Your task to perform on an android device: toggle data saver in the chrome app Image 0: 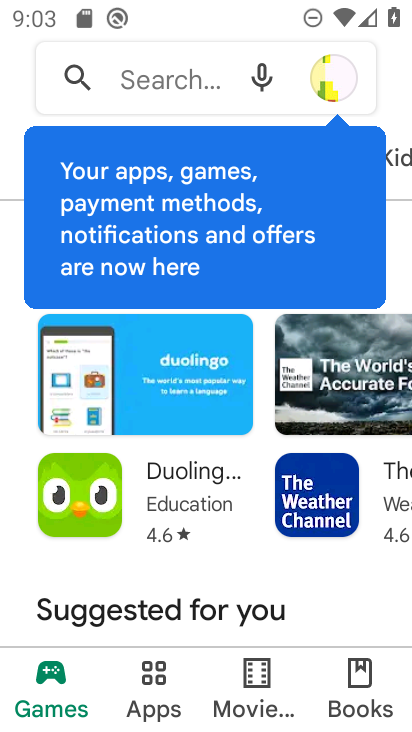
Step 0: press home button
Your task to perform on an android device: toggle data saver in the chrome app Image 1: 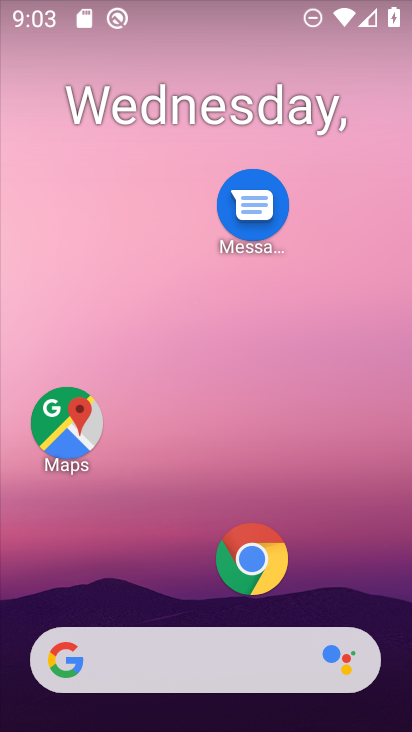
Step 1: drag from (204, 596) to (180, 86)
Your task to perform on an android device: toggle data saver in the chrome app Image 2: 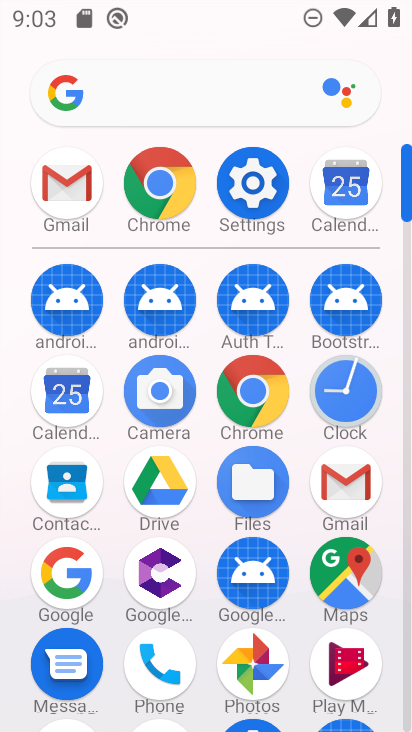
Step 2: click (174, 193)
Your task to perform on an android device: toggle data saver in the chrome app Image 3: 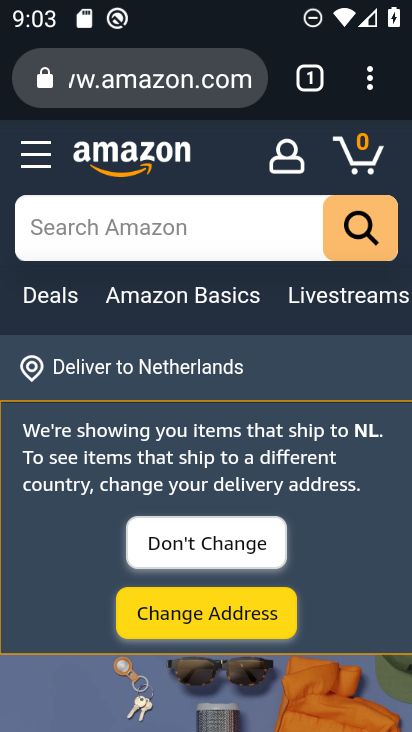
Step 3: click (371, 91)
Your task to perform on an android device: toggle data saver in the chrome app Image 4: 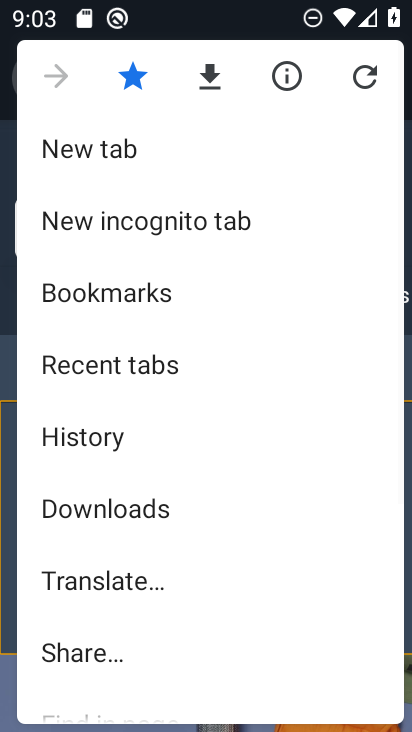
Step 4: drag from (234, 327) to (277, 2)
Your task to perform on an android device: toggle data saver in the chrome app Image 5: 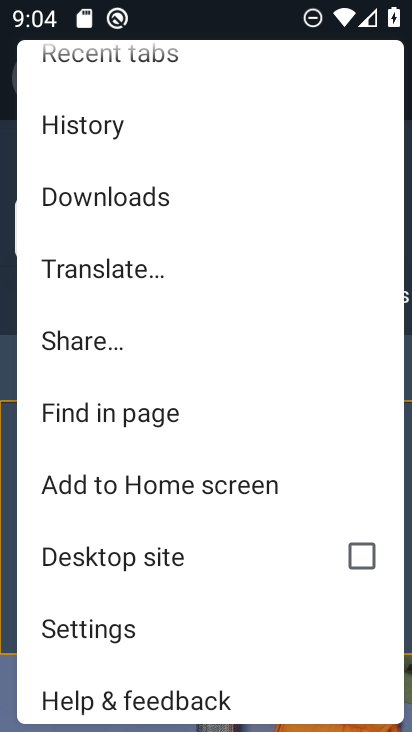
Step 5: drag from (179, 475) to (170, 47)
Your task to perform on an android device: toggle data saver in the chrome app Image 6: 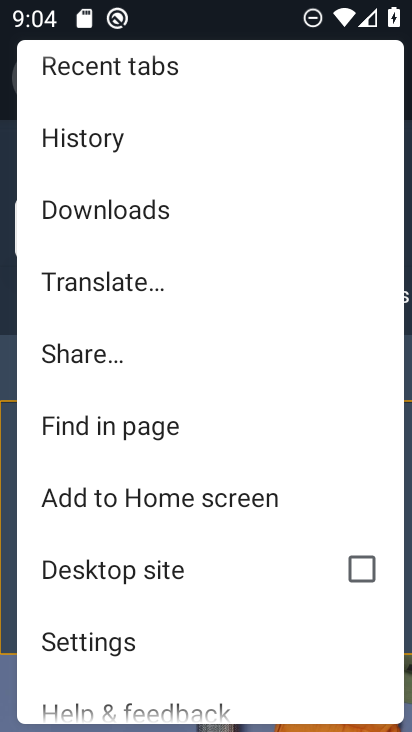
Step 6: click (81, 649)
Your task to perform on an android device: toggle data saver in the chrome app Image 7: 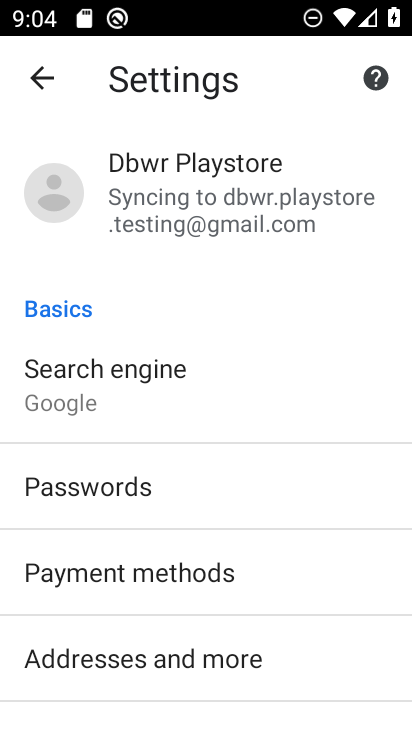
Step 7: drag from (150, 619) to (170, 224)
Your task to perform on an android device: toggle data saver in the chrome app Image 8: 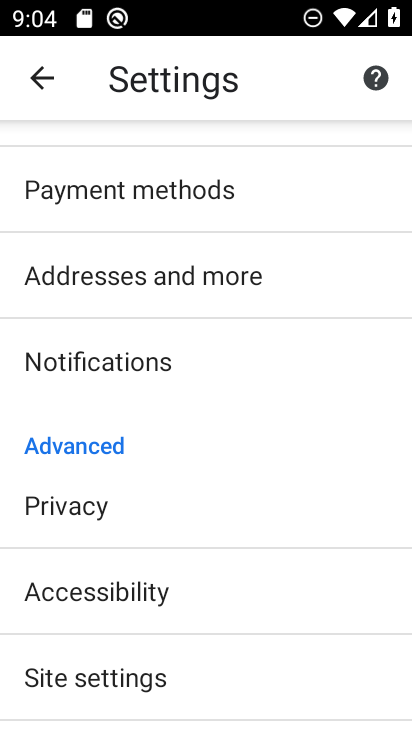
Step 8: drag from (96, 627) to (109, 281)
Your task to perform on an android device: toggle data saver in the chrome app Image 9: 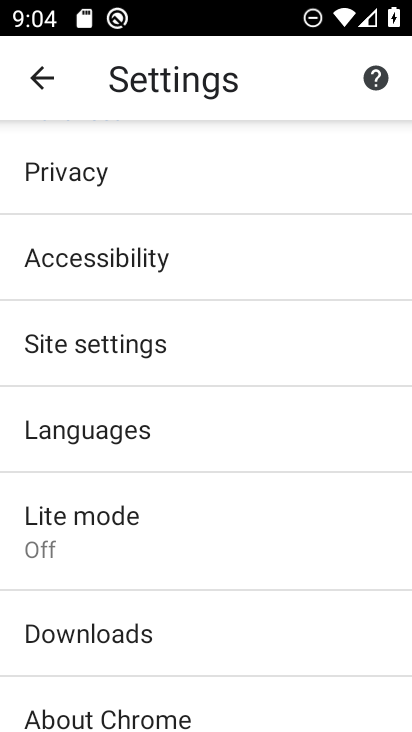
Step 9: drag from (95, 602) to (122, 196)
Your task to perform on an android device: toggle data saver in the chrome app Image 10: 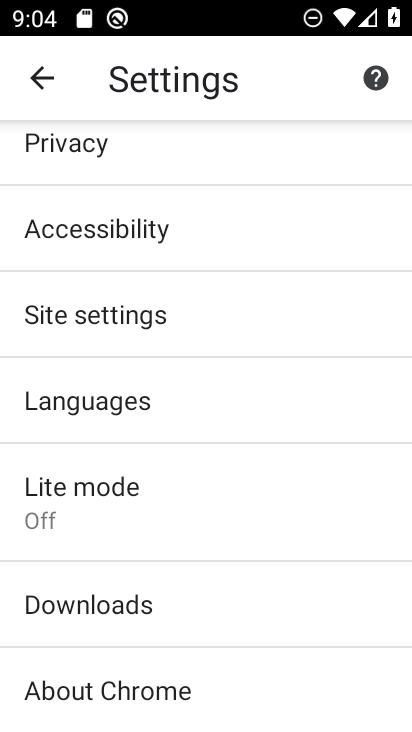
Step 10: drag from (141, 552) to (191, 362)
Your task to perform on an android device: toggle data saver in the chrome app Image 11: 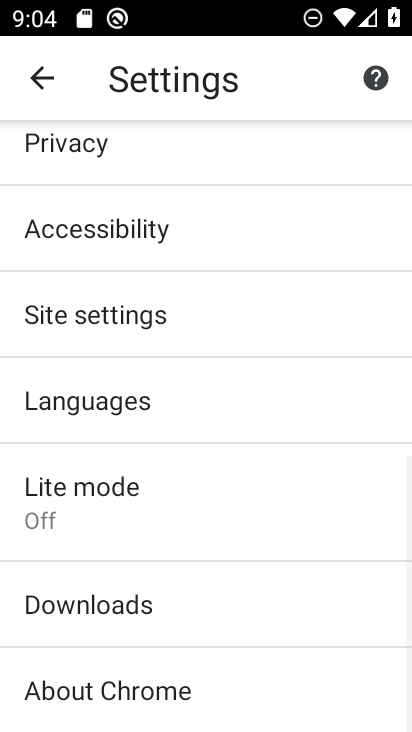
Step 11: click (148, 485)
Your task to perform on an android device: toggle data saver in the chrome app Image 12: 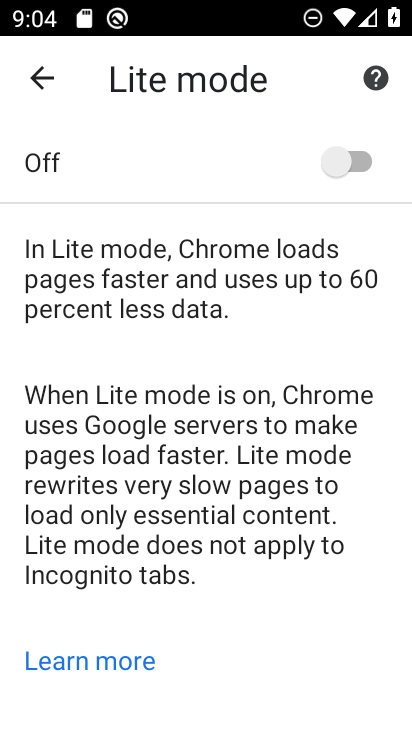
Step 12: click (354, 170)
Your task to perform on an android device: toggle data saver in the chrome app Image 13: 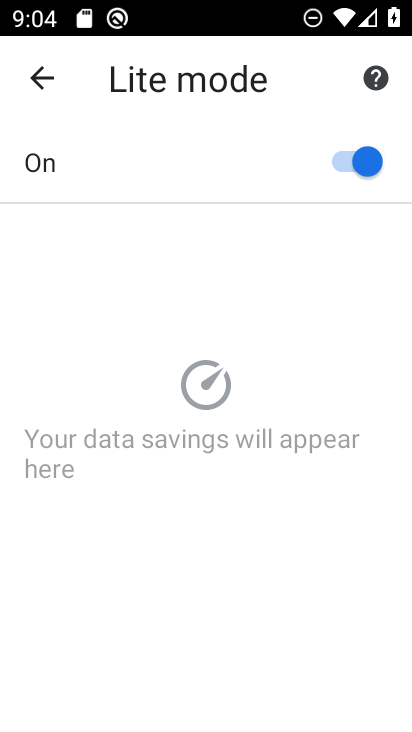
Step 13: task complete